Your task to perform on an android device: Open sound settings Image 0: 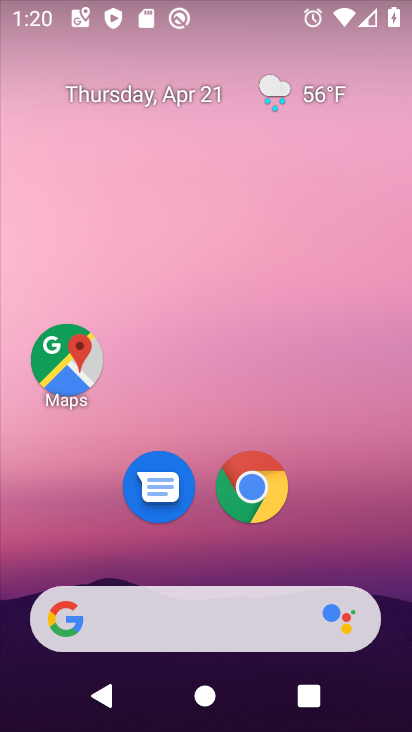
Step 0: drag from (338, 538) to (248, 26)
Your task to perform on an android device: Open sound settings Image 1: 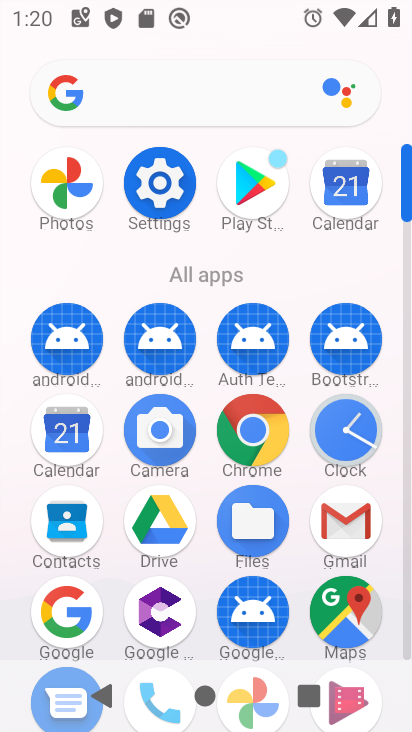
Step 1: click (161, 171)
Your task to perform on an android device: Open sound settings Image 2: 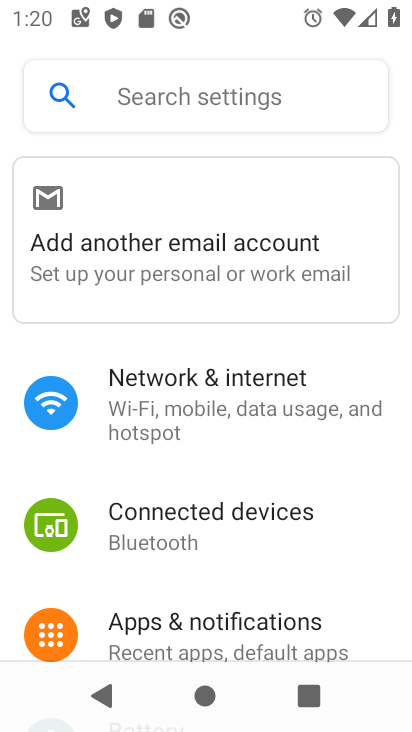
Step 2: drag from (355, 634) to (356, 85)
Your task to perform on an android device: Open sound settings Image 3: 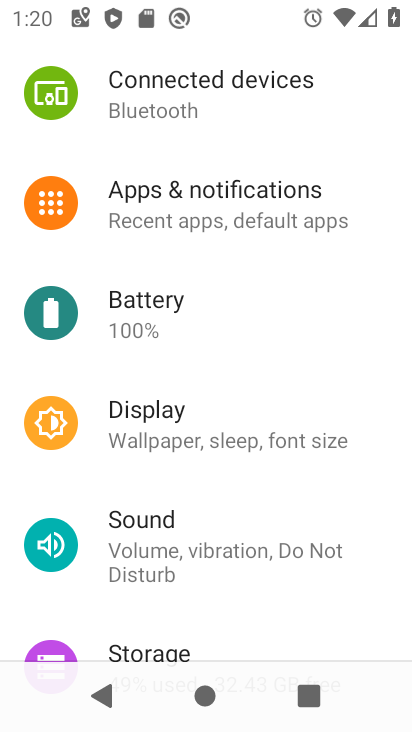
Step 3: click (165, 556)
Your task to perform on an android device: Open sound settings Image 4: 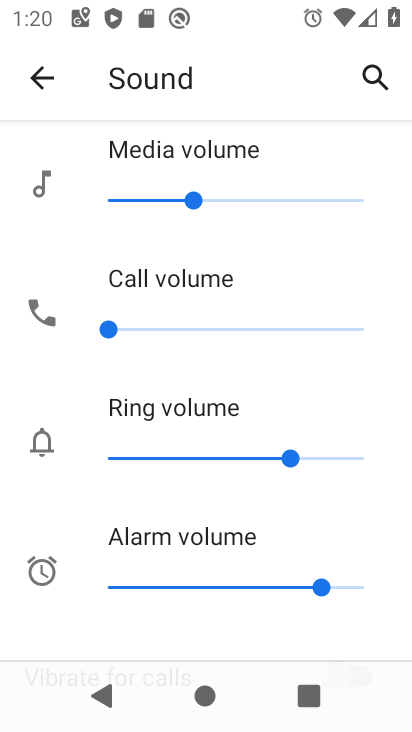
Step 4: task complete